Your task to perform on an android device: Open Chrome and go to settings Image 0: 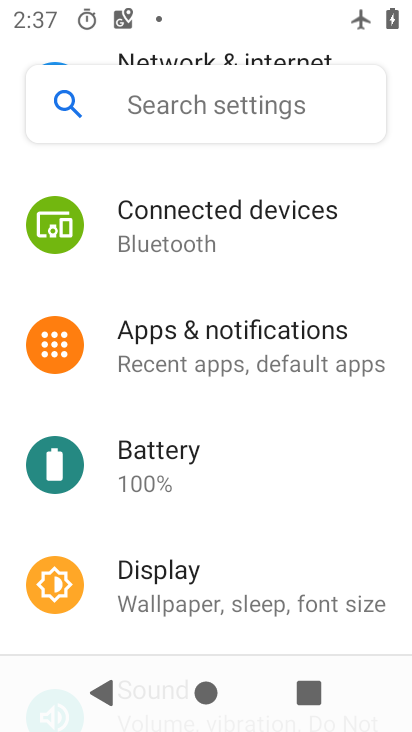
Step 0: press home button
Your task to perform on an android device: Open Chrome and go to settings Image 1: 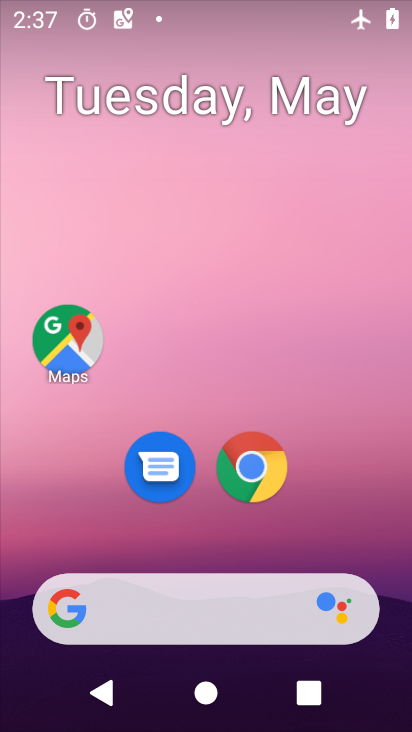
Step 1: drag from (335, 507) to (320, 159)
Your task to perform on an android device: Open Chrome and go to settings Image 2: 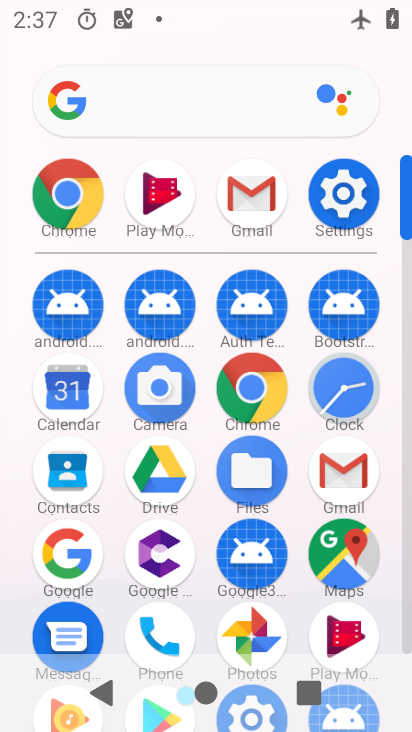
Step 2: click (264, 394)
Your task to perform on an android device: Open Chrome and go to settings Image 3: 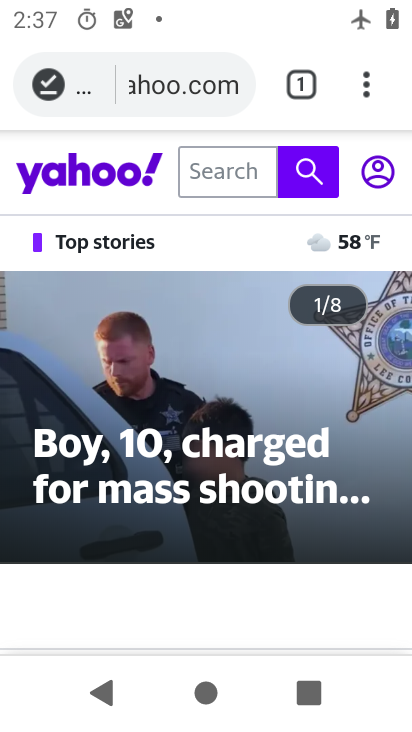
Step 3: click (364, 98)
Your task to perform on an android device: Open Chrome and go to settings Image 4: 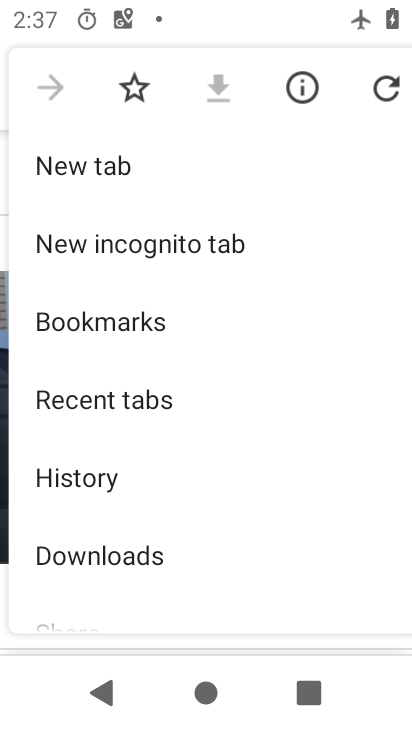
Step 4: drag from (293, 507) to (291, 407)
Your task to perform on an android device: Open Chrome and go to settings Image 5: 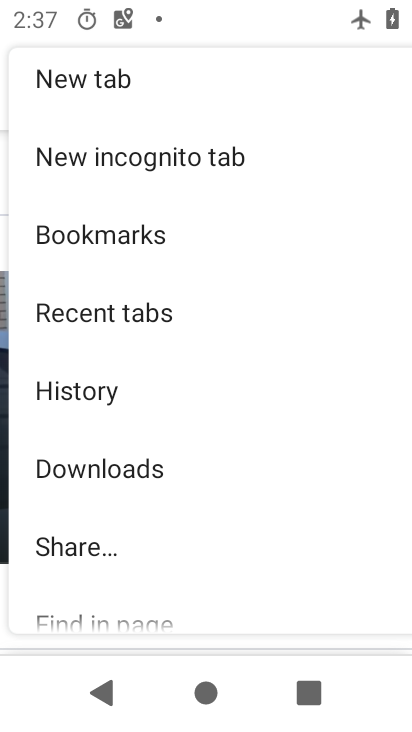
Step 5: drag from (293, 550) to (313, 404)
Your task to perform on an android device: Open Chrome and go to settings Image 6: 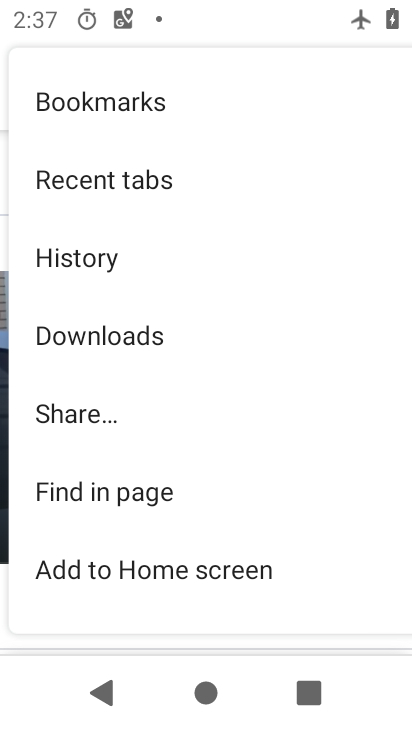
Step 6: drag from (320, 516) to (322, 408)
Your task to perform on an android device: Open Chrome and go to settings Image 7: 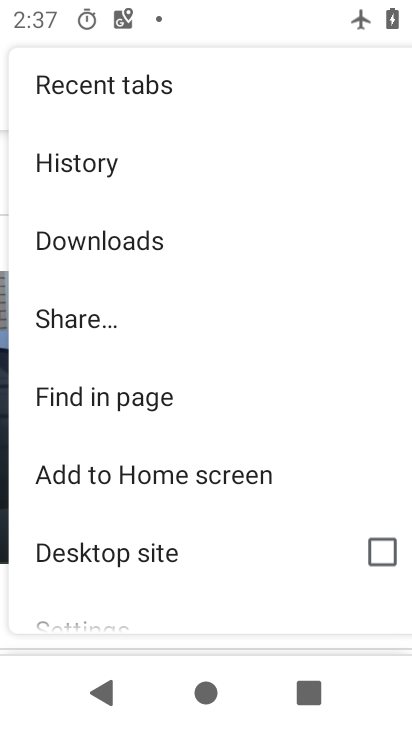
Step 7: drag from (295, 547) to (310, 413)
Your task to perform on an android device: Open Chrome and go to settings Image 8: 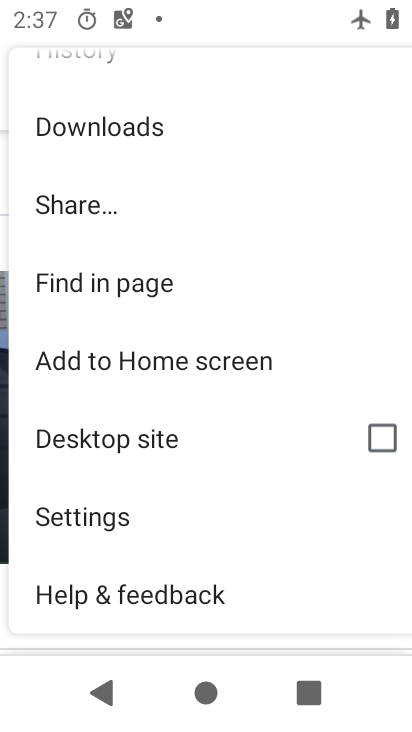
Step 8: drag from (321, 563) to (328, 407)
Your task to perform on an android device: Open Chrome and go to settings Image 9: 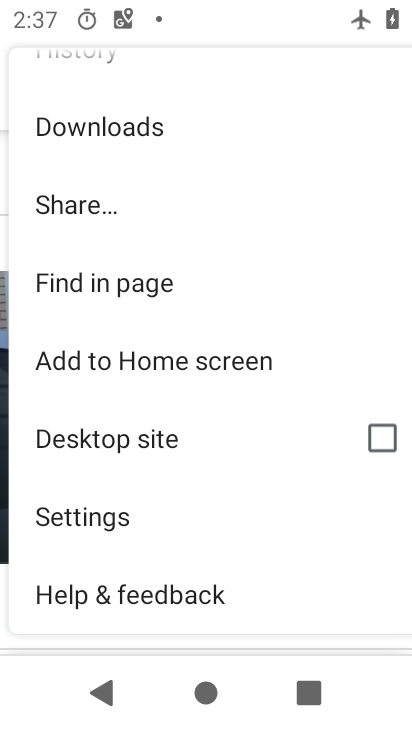
Step 9: click (137, 515)
Your task to perform on an android device: Open Chrome and go to settings Image 10: 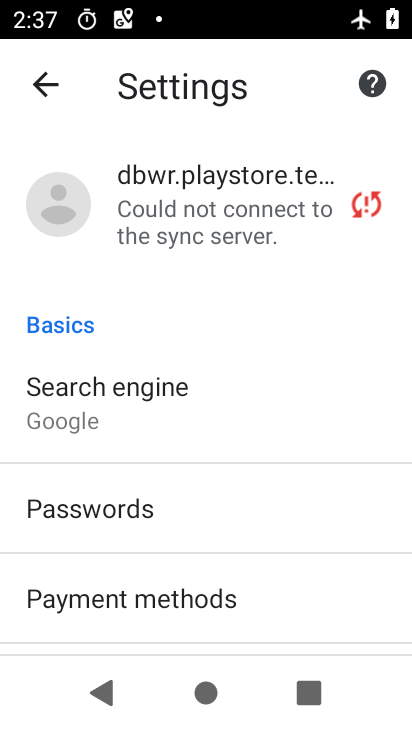
Step 10: task complete